Your task to perform on an android device: Go to Google maps Image 0: 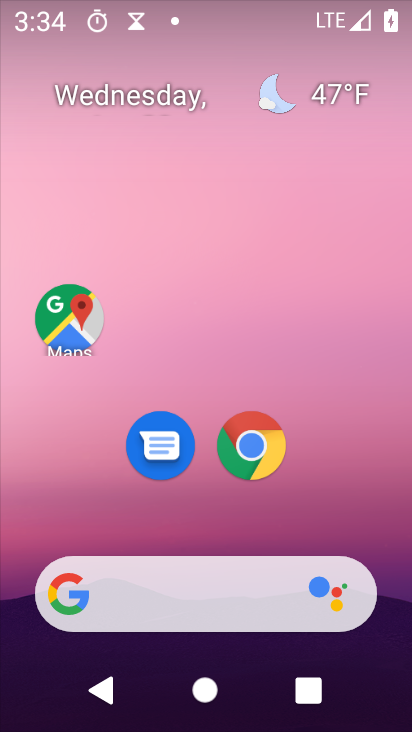
Step 0: click (65, 334)
Your task to perform on an android device: Go to Google maps Image 1: 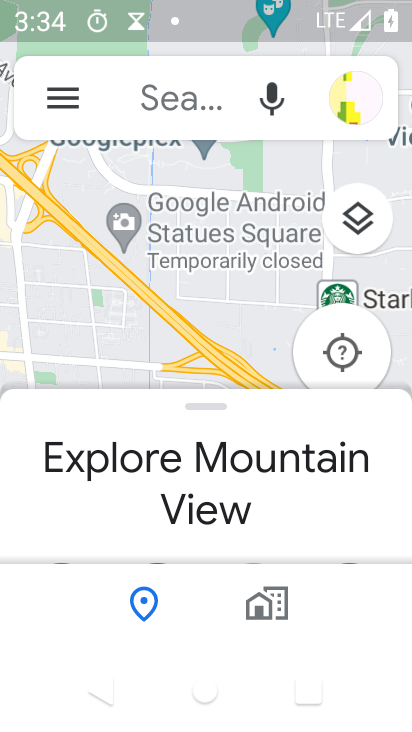
Step 1: task complete